Your task to perform on an android device: Go to Reddit.com Image 0: 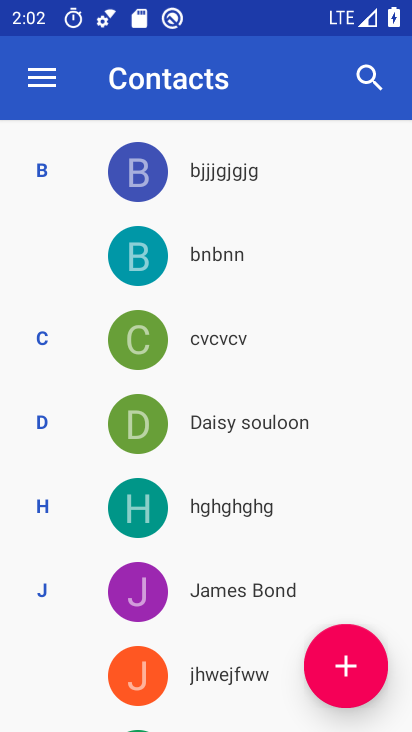
Step 0: press home button
Your task to perform on an android device: Go to Reddit.com Image 1: 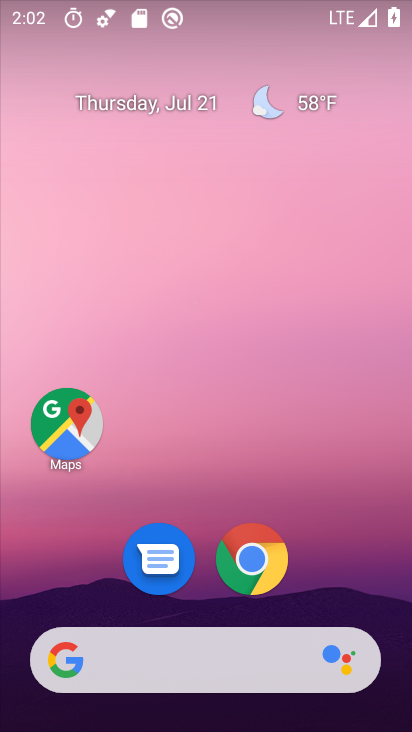
Step 1: drag from (354, 576) to (366, 85)
Your task to perform on an android device: Go to Reddit.com Image 2: 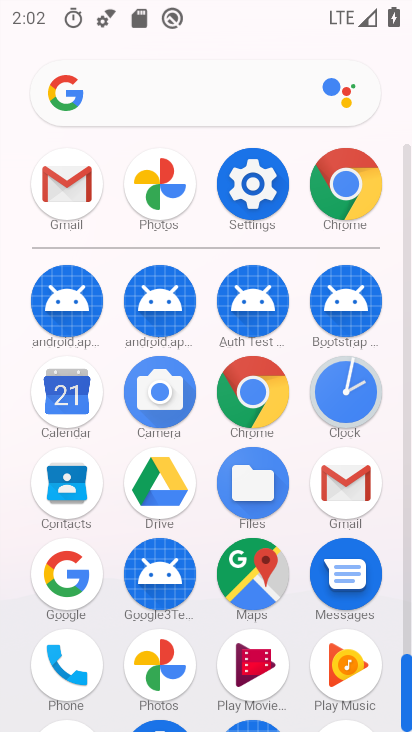
Step 2: click (261, 393)
Your task to perform on an android device: Go to Reddit.com Image 3: 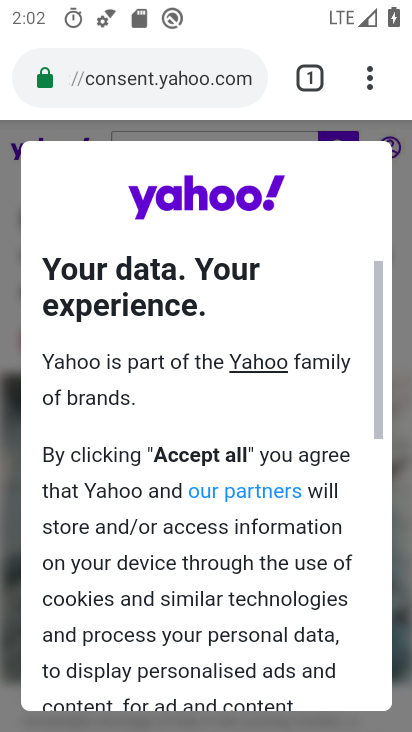
Step 3: click (210, 72)
Your task to perform on an android device: Go to Reddit.com Image 4: 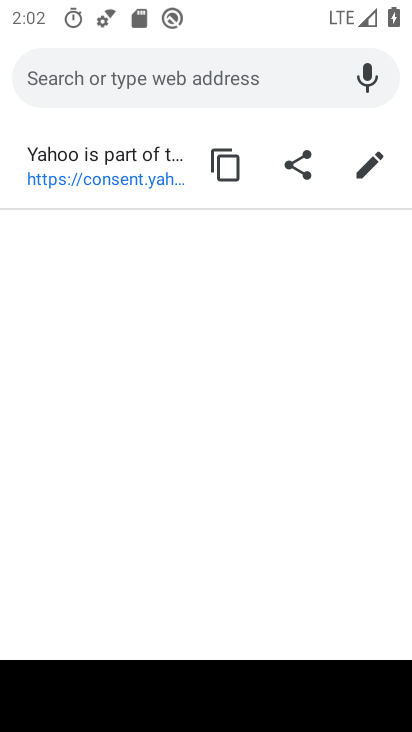
Step 4: type "reddit.com"
Your task to perform on an android device: Go to Reddit.com Image 5: 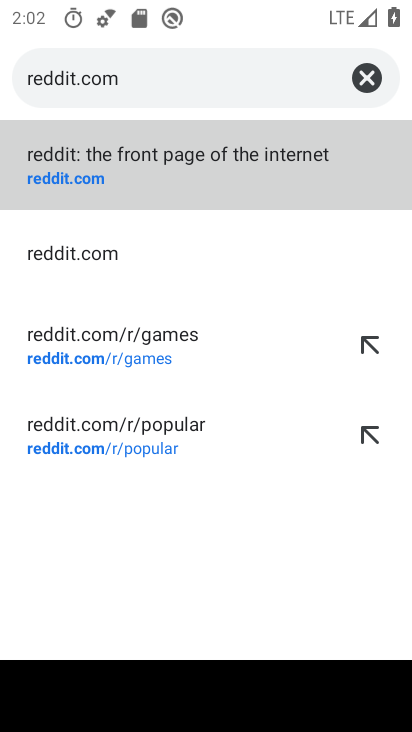
Step 5: click (285, 164)
Your task to perform on an android device: Go to Reddit.com Image 6: 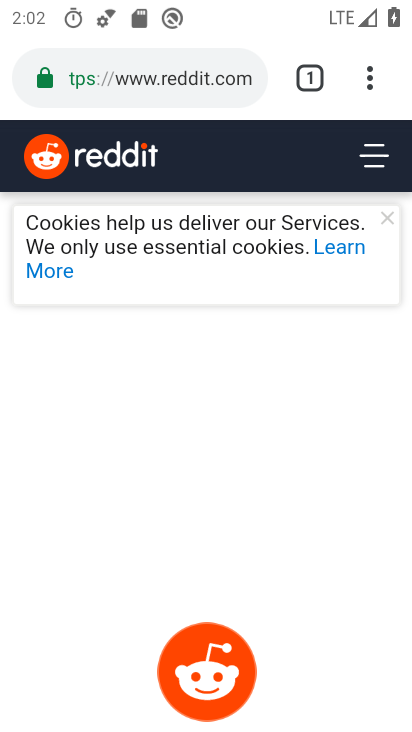
Step 6: task complete